Your task to perform on an android device: turn off location history Image 0: 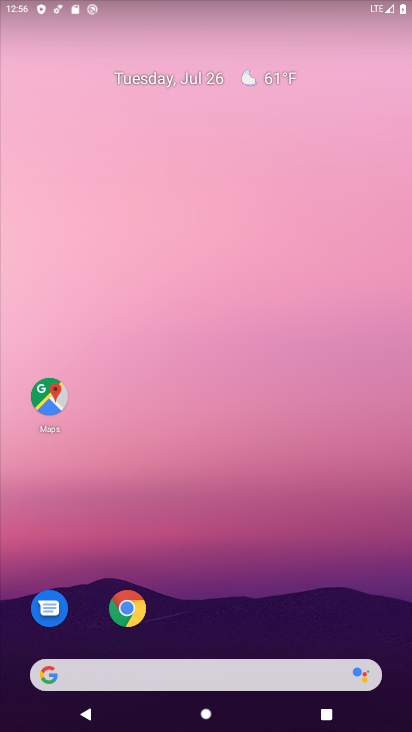
Step 0: drag from (288, 619) to (259, 138)
Your task to perform on an android device: turn off location history Image 1: 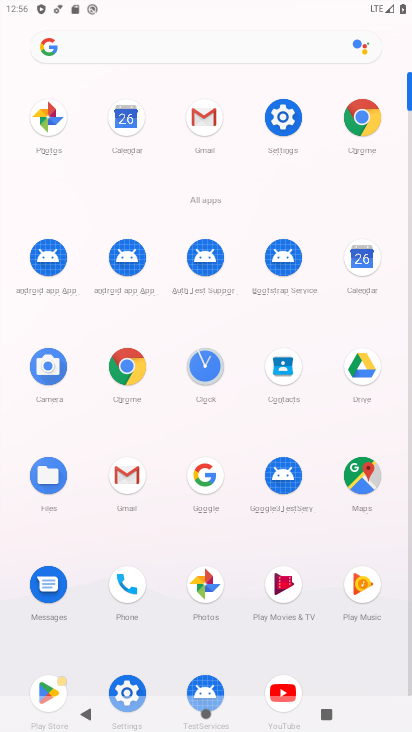
Step 1: click (366, 485)
Your task to perform on an android device: turn off location history Image 2: 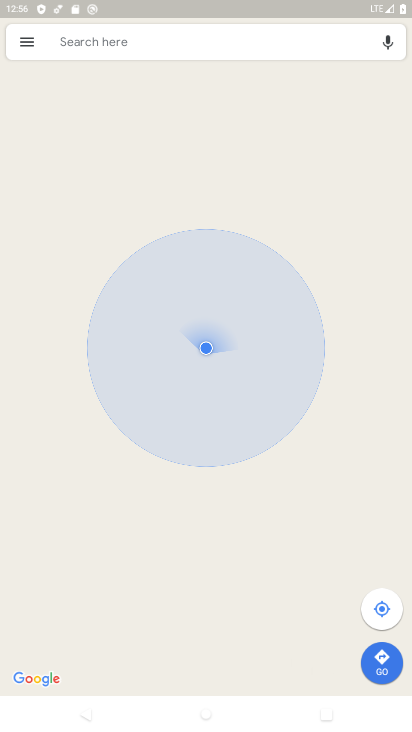
Step 2: click (32, 38)
Your task to perform on an android device: turn off location history Image 3: 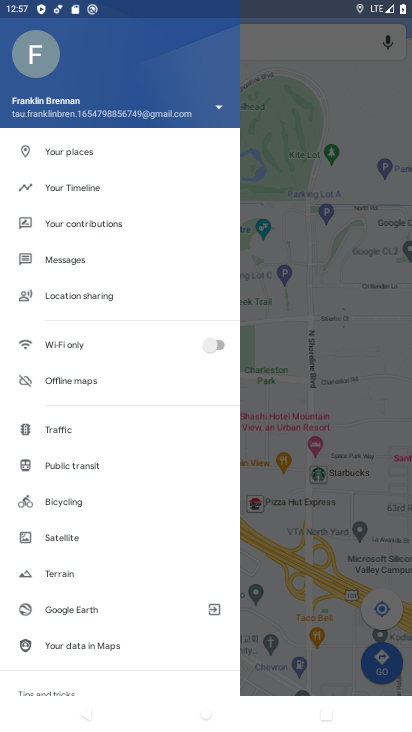
Step 3: click (100, 180)
Your task to perform on an android device: turn off location history Image 4: 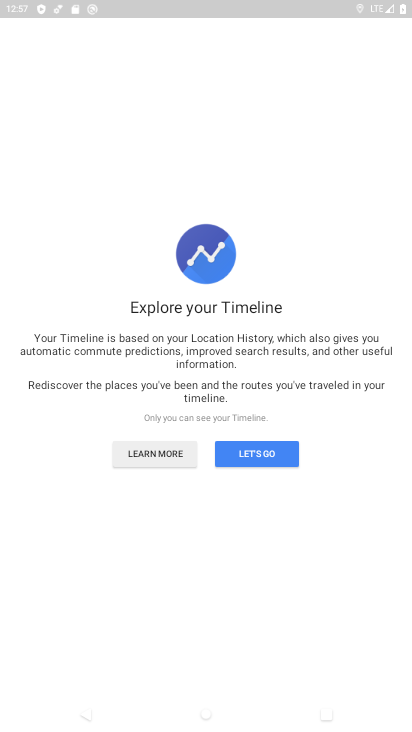
Step 4: click (265, 448)
Your task to perform on an android device: turn off location history Image 5: 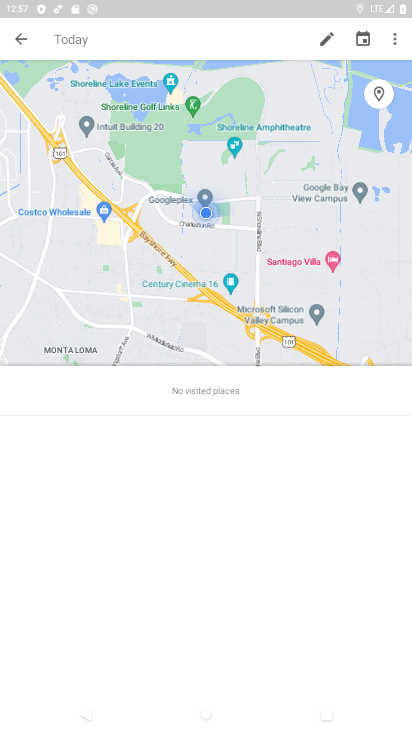
Step 5: click (397, 44)
Your task to perform on an android device: turn off location history Image 6: 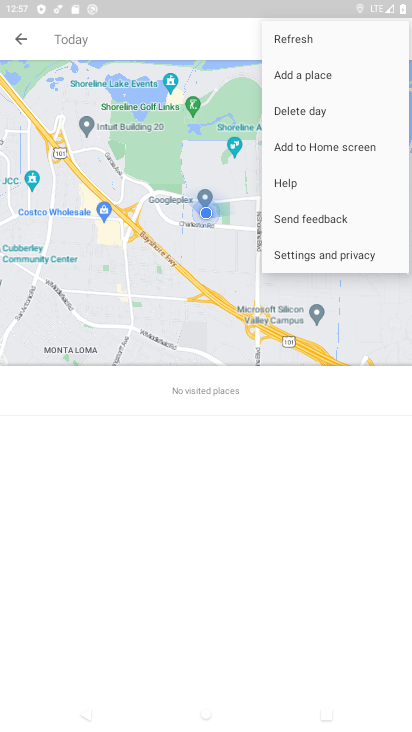
Step 6: click (361, 256)
Your task to perform on an android device: turn off location history Image 7: 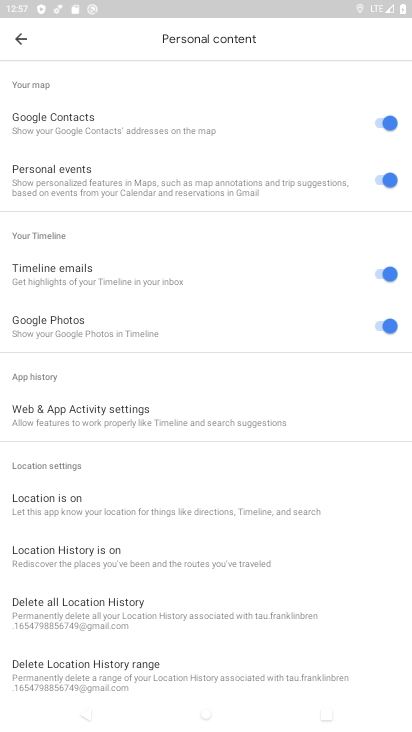
Step 7: click (233, 569)
Your task to perform on an android device: turn off location history Image 8: 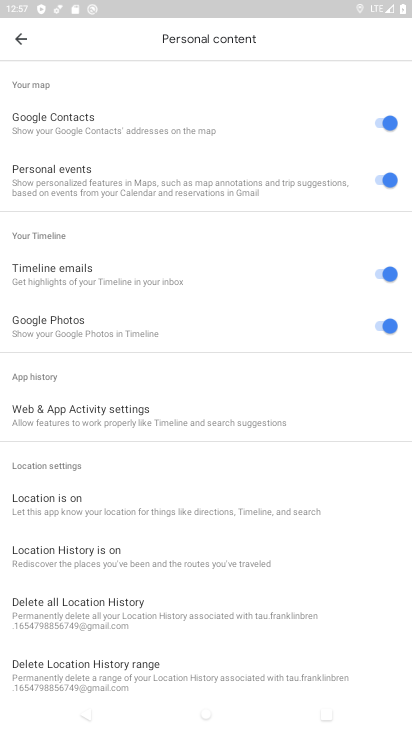
Step 8: click (132, 542)
Your task to perform on an android device: turn off location history Image 9: 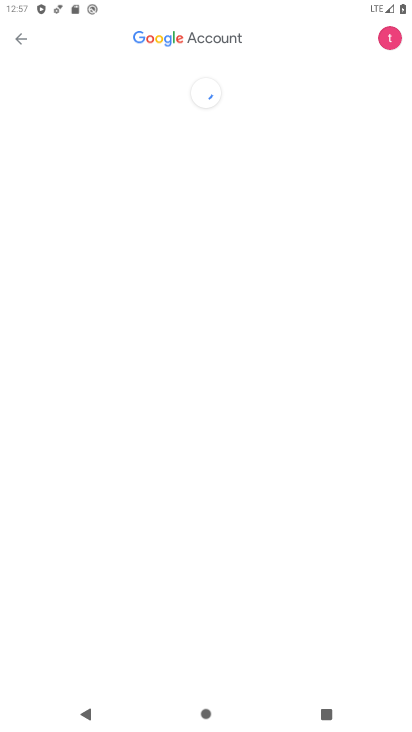
Step 9: click (369, 435)
Your task to perform on an android device: turn off location history Image 10: 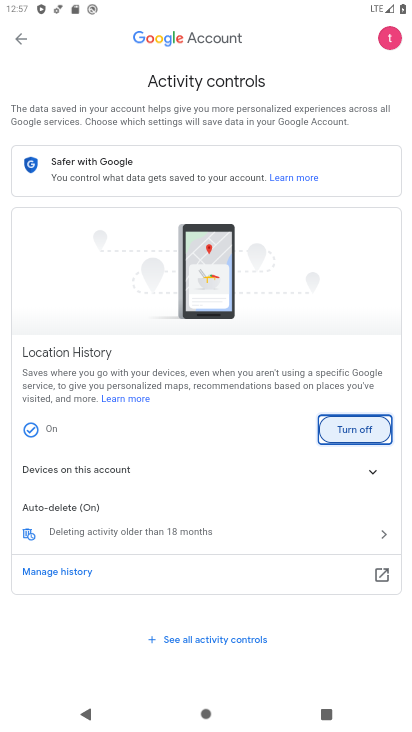
Step 10: click (356, 435)
Your task to perform on an android device: turn off location history Image 11: 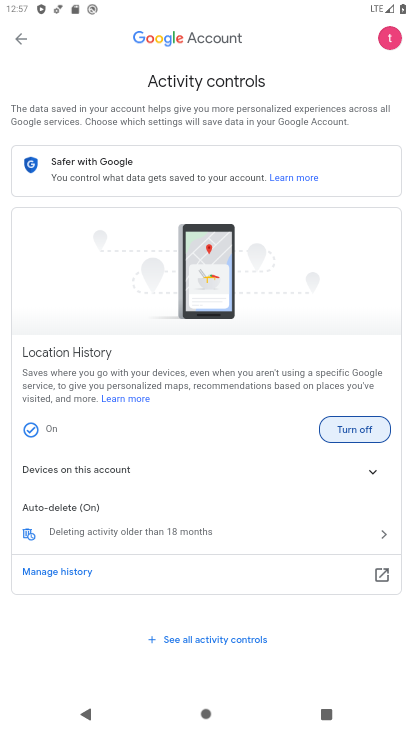
Step 11: click (360, 432)
Your task to perform on an android device: turn off location history Image 12: 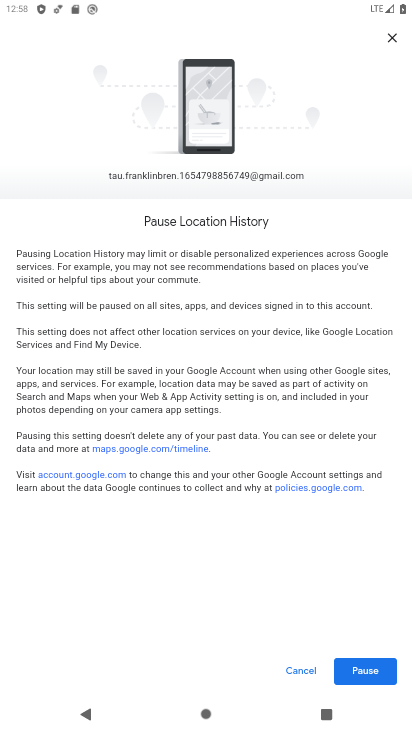
Step 12: click (356, 672)
Your task to perform on an android device: turn off location history Image 13: 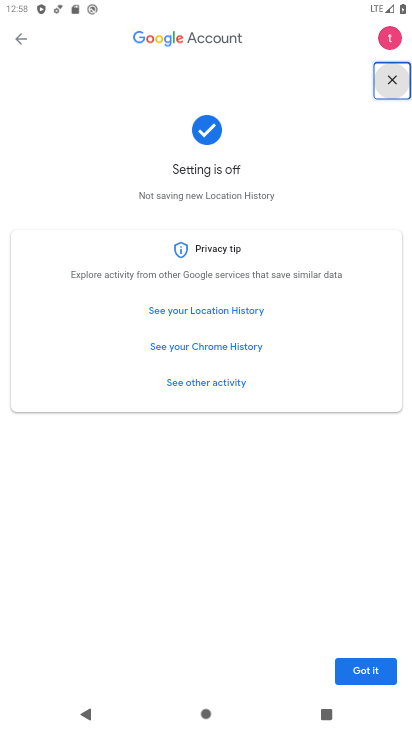
Step 13: click (371, 668)
Your task to perform on an android device: turn off location history Image 14: 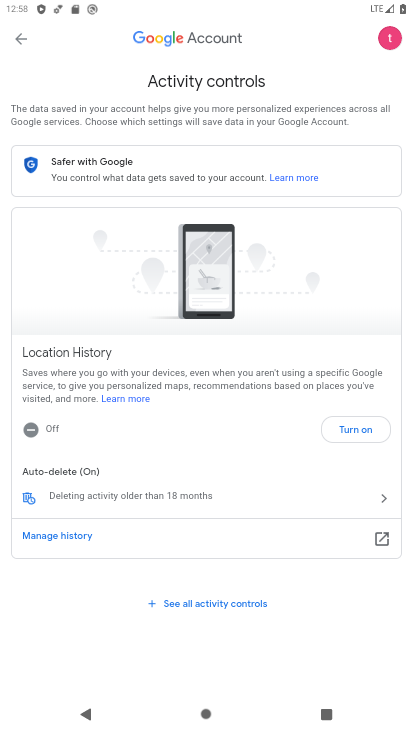
Step 14: task complete